Your task to perform on an android device: What's the weather today? Image 0: 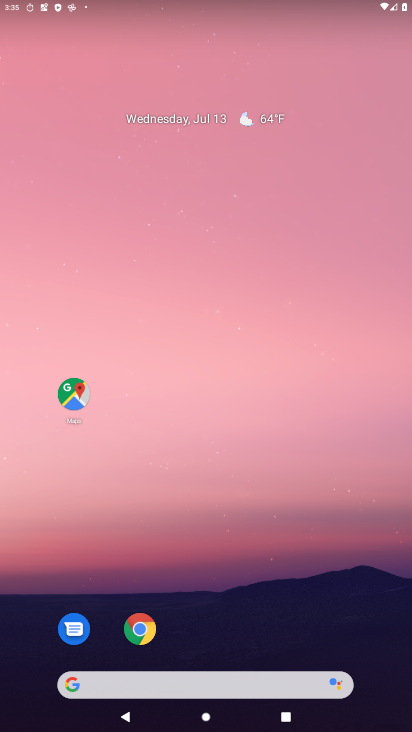
Step 0: drag from (299, 669) to (262, 24)
Your task to perform on an android device: What's the weather today? Image 1: 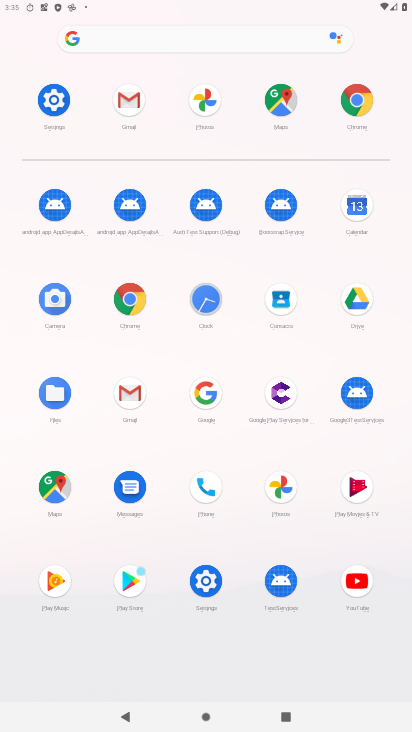
Step 1: click (128, 303)
Your task to perform on an android device: What's the weather today? Image 2: 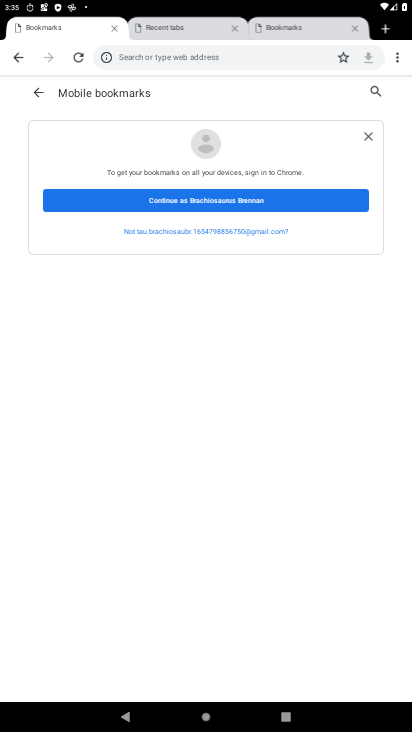
Step 2: click (199, 60)
Your task to perform on an android device: What's the weather today? Image 3: 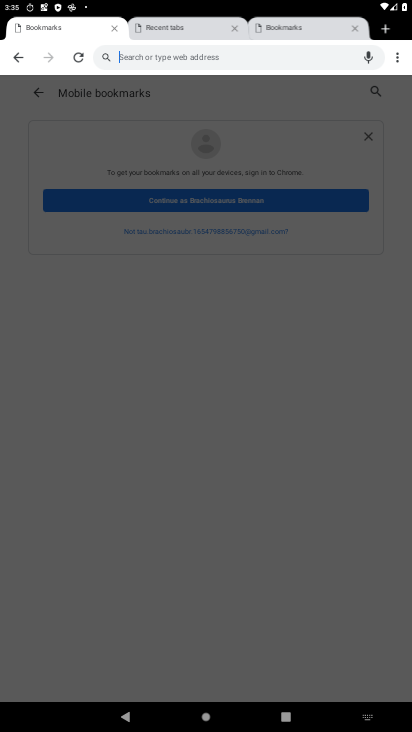
Step 3: type "weather today"
Your task to perform on an android device: What's the weather today? Image 4: 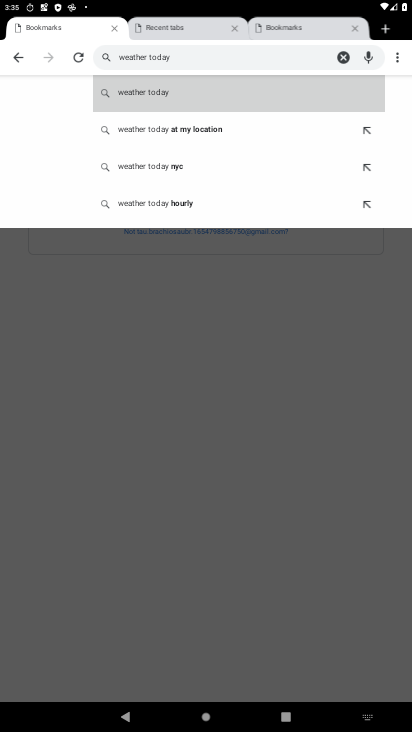
Step 4: click (168, 88)
Your task to perform on an android device: What's the weather today? Image 5: 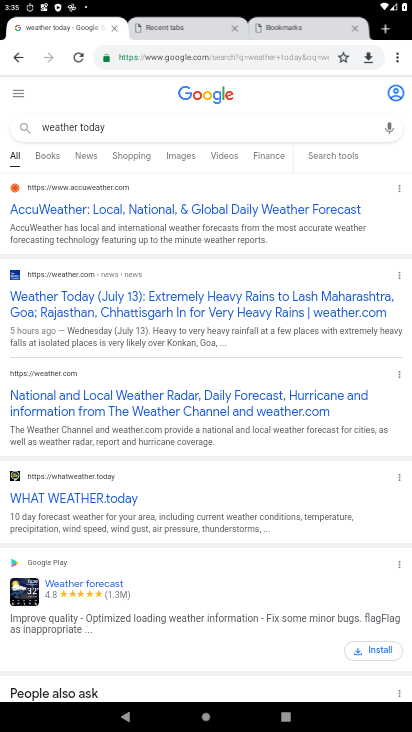
Step 5: task complete